Your task to perform on an android device: Search for sushi restaurants on Maps Image 0: 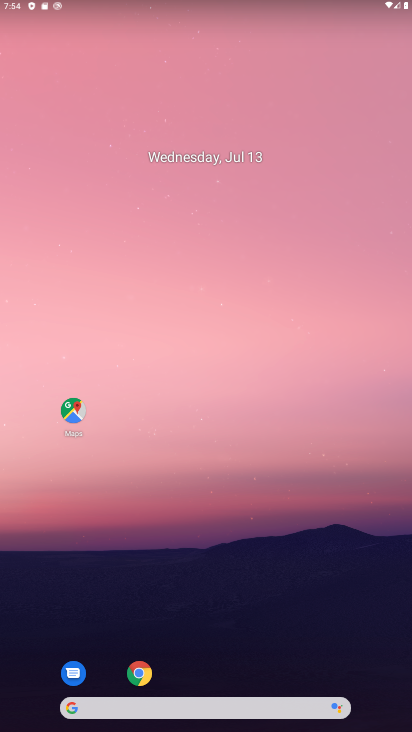
Step 0: drag from (328, 647) to (272, 160)
Your task to perform on an android device: Search for sushi restaurants on Maps Image 1: 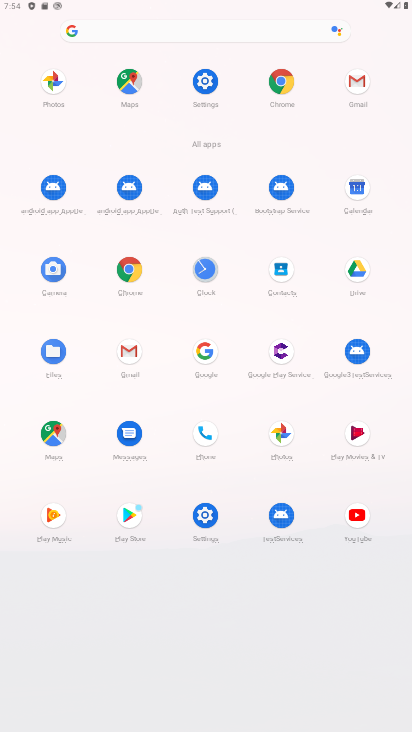
Step 1: click (130, 80)
Your task to perform on an android device: Search for sushi restaurants on Maps Image 2: 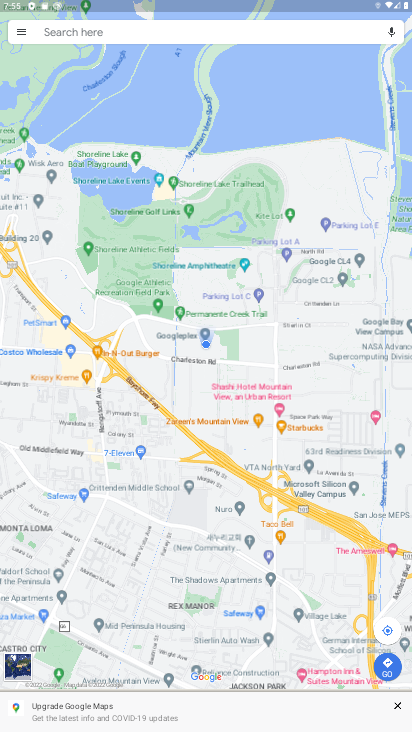
Step 2: click (212, 34)
Your task to perform on an android device: Search for sushi restaurants on Maps Image 3: 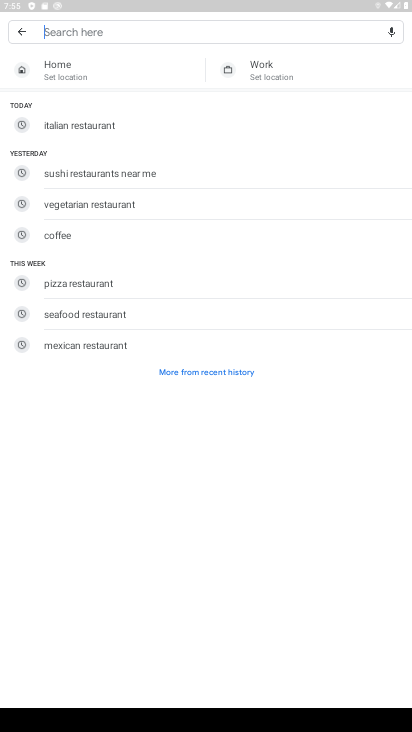
Step 3: type "sushi restaurants"
Your task to perform on an android device: Search for sushi restaurants on Maps Image 4: 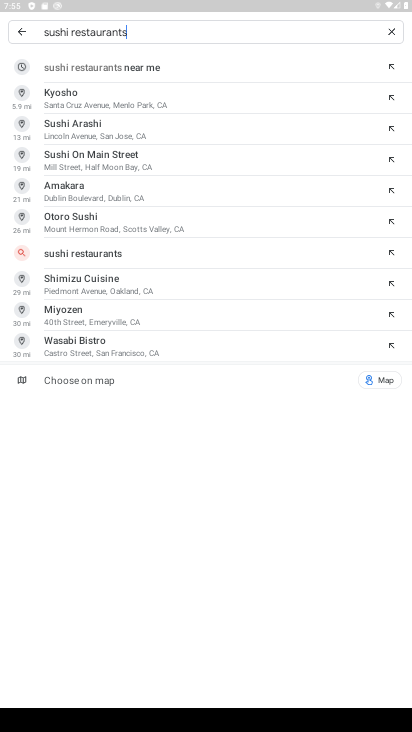
Step 4: press enter
Your task to perform on an android device: Search for sushi restaurants on Maps Image 5: 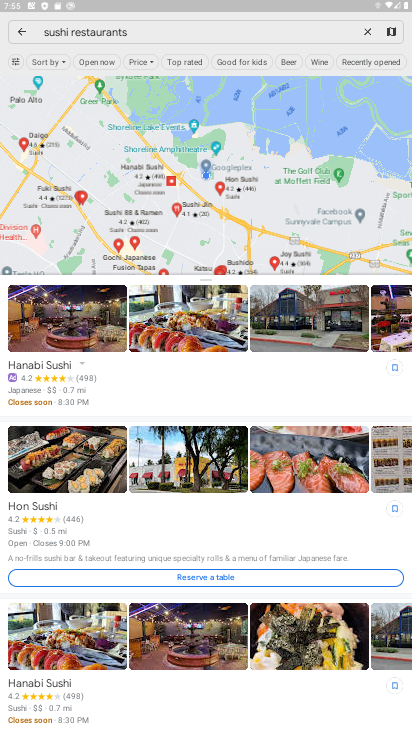
Step 5: task complete